Your task to perform on an android device: Open Maps and search for coffee Image 0: 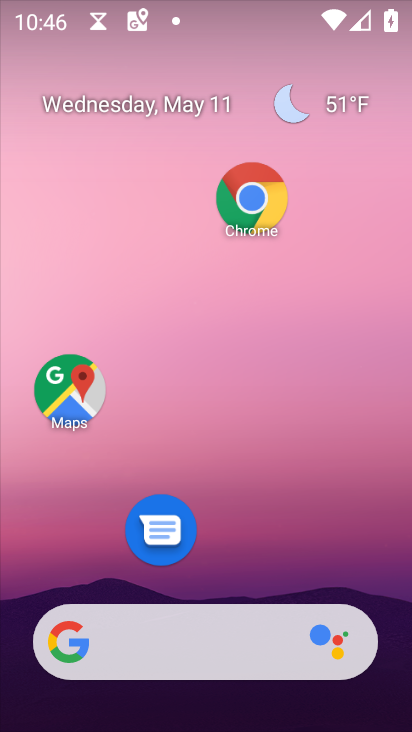
Step 0: click (47, 392)
Your task to perform on an android device: Open Maps and search for coffee Image 1: 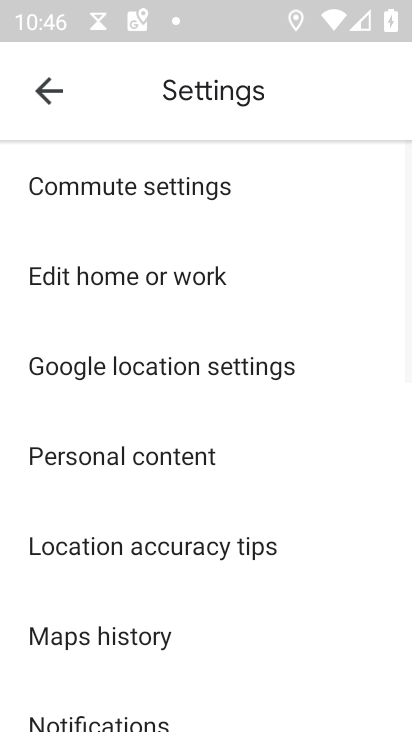
Step 1: click (42, 93)
Your task to perform on an android device: Open Maps and search for coffee Image 2: 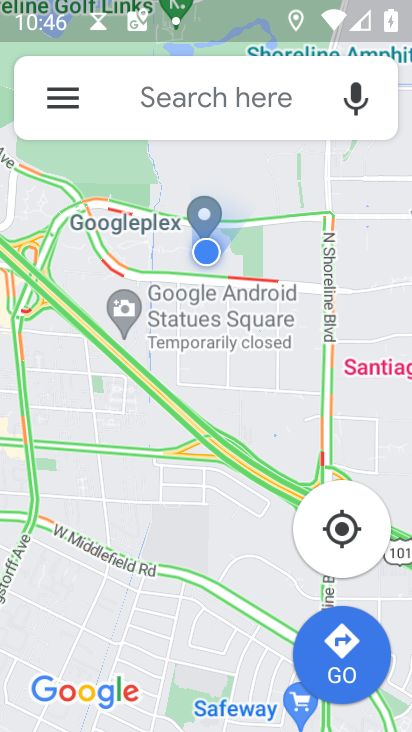
Step 2: click (160, 89)
Your task to perform on an android device: Open Maps and search for coffee Image 3: 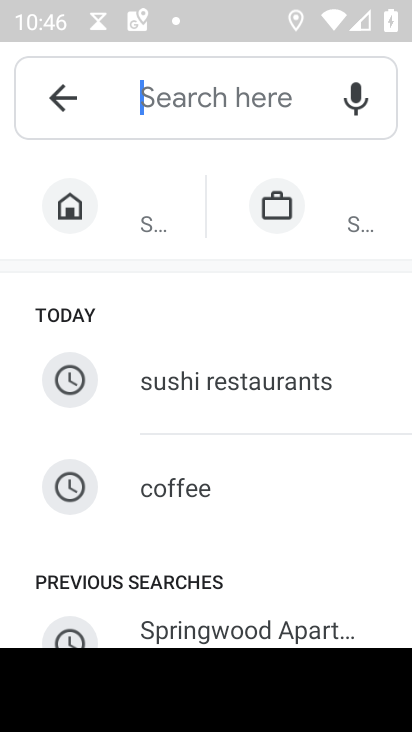
Step 3: click (232, 516)
Your task to perform on an android device: Open Maps and search for coffee Image 4: 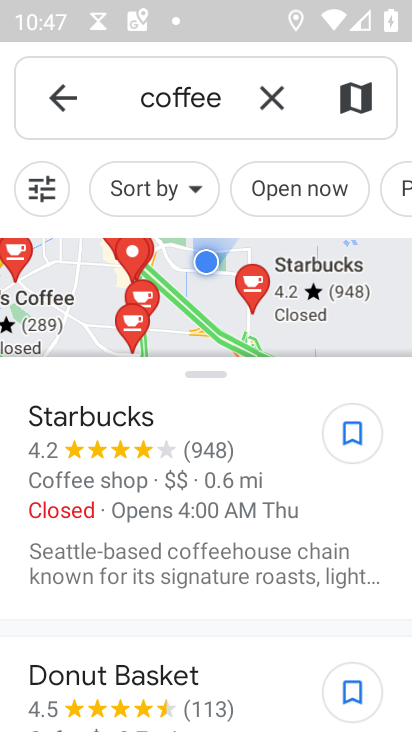
Step 4: task complete